Your task to perform on an android device: Go to network settings Image 0: 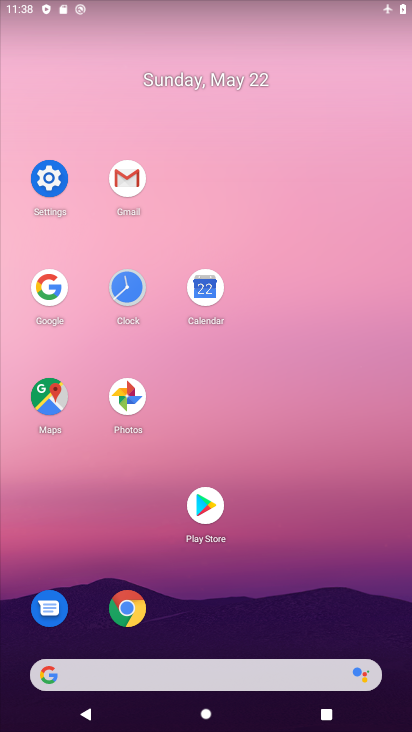
Step 0: click (65, 182)
Your task to perform on an android device: Go to network settings Image 1: 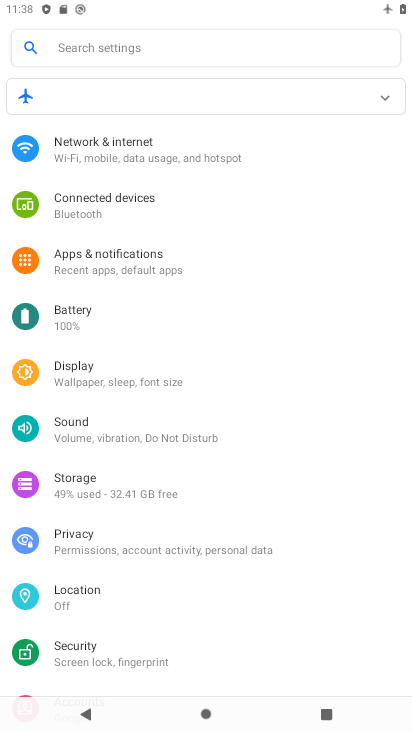
Step 1: click (93, 164)
Your task to perform on an android device: Go to network settings Image 2: 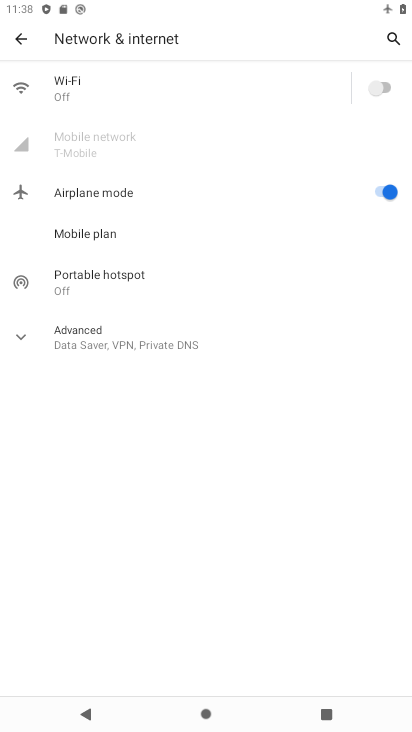
Step 2: task complete